Your task to perform on an android device: open app "Indeed Job Search" (install if not already installed) and go to login screen Image 0: 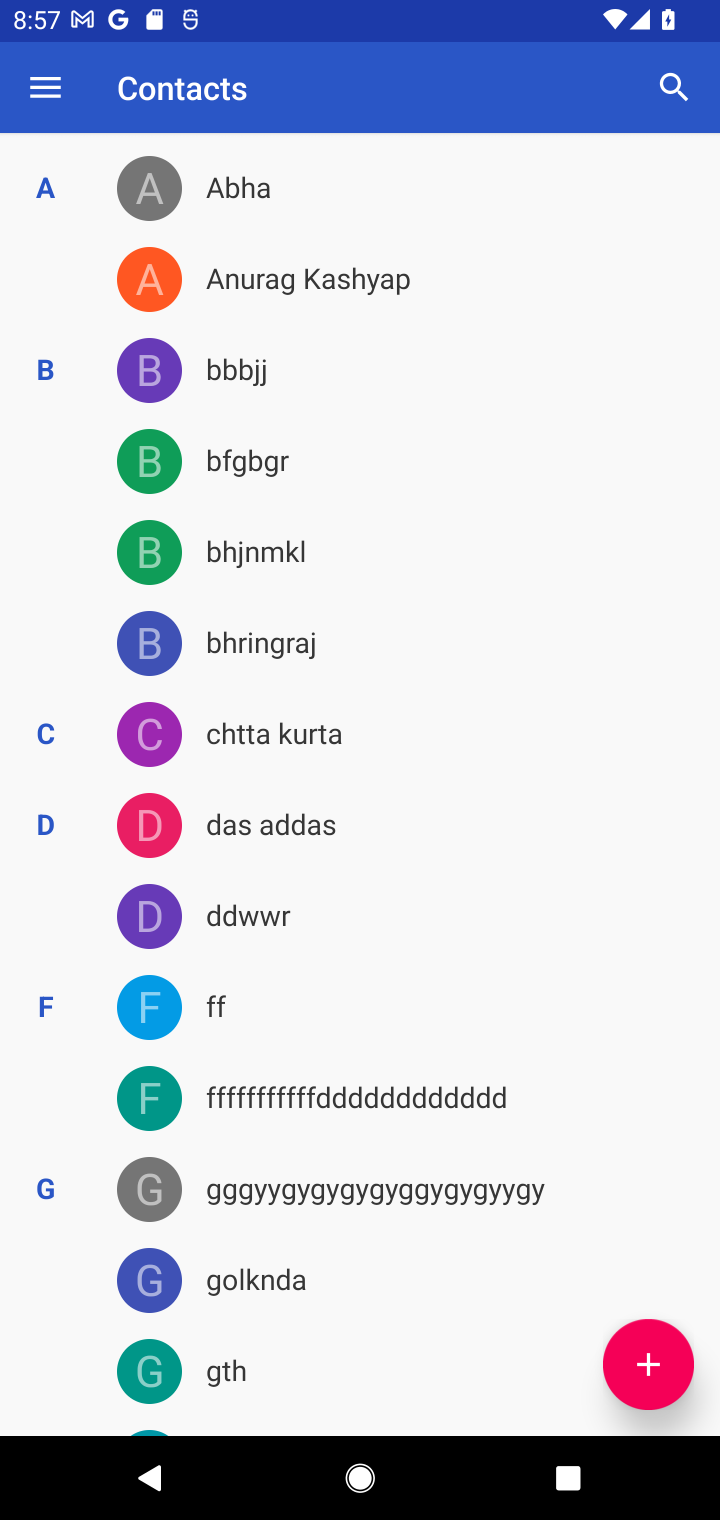
Step 0: press home button
Your task to perform on an android device: open app "Indeed Job Search" (install if not already installed) and go to login screen Image 1: 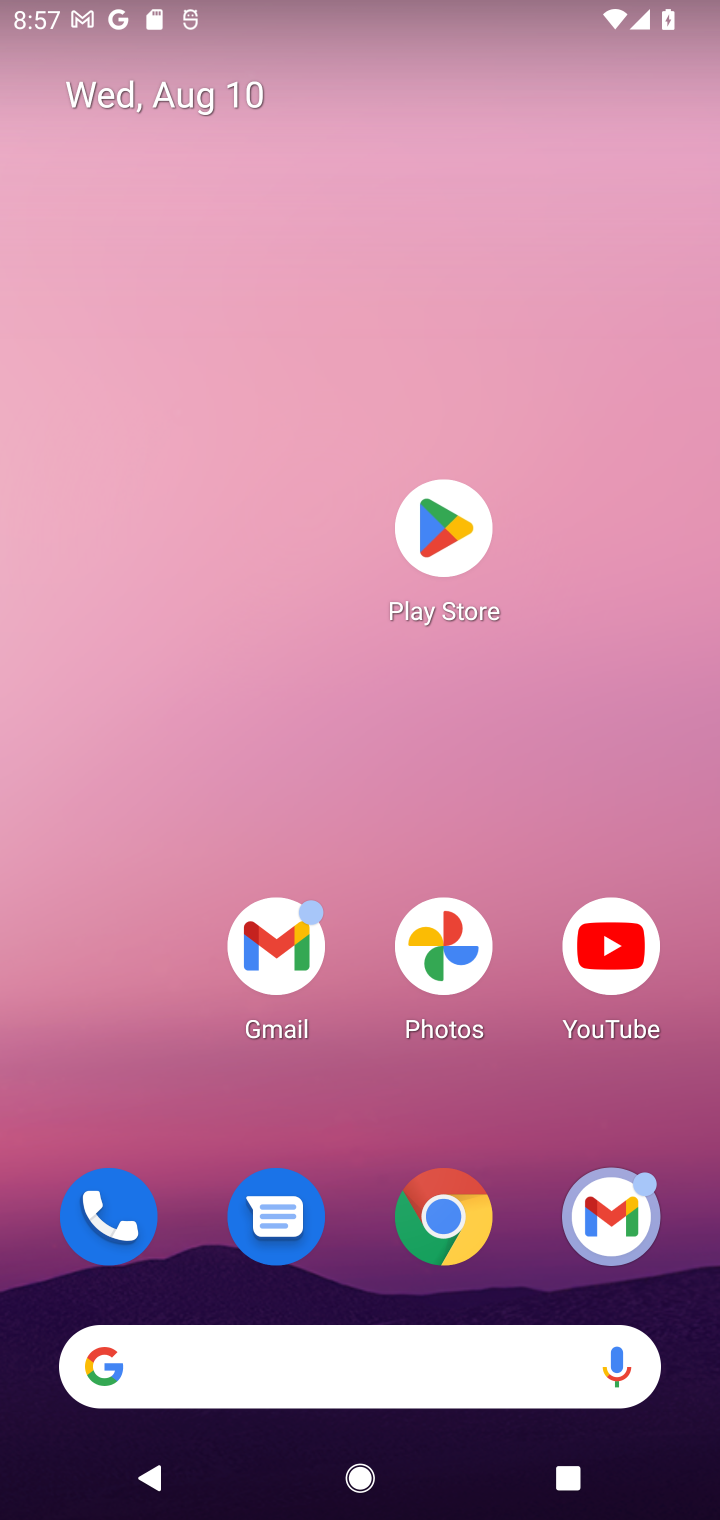
Step 1: click (444, 530)
Your task to perform on an android device: open app "Indeed Job Search" (install if not already installed) and go to login screen Image 2: 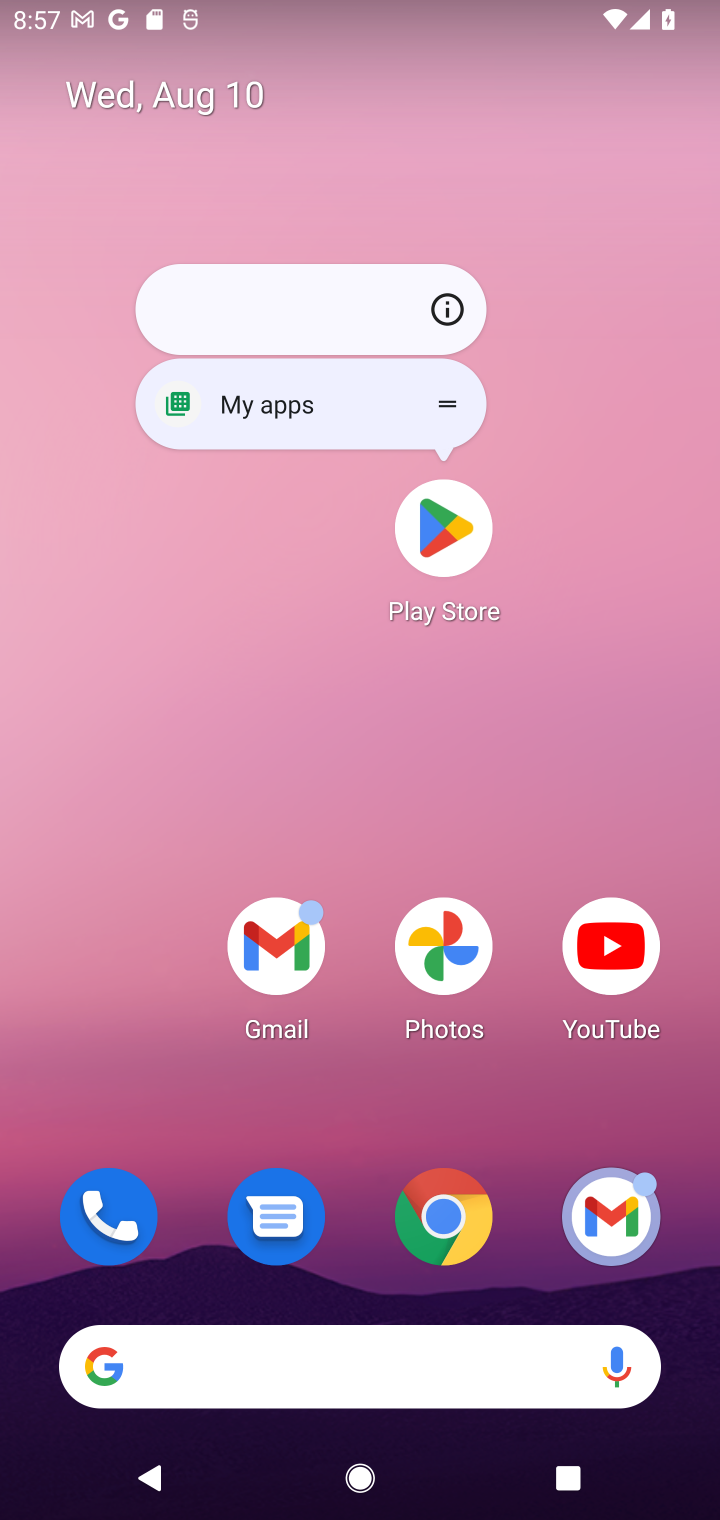
Step 2: click (444, 528)
Your task to perform on an android device: open app "Indeed Job Search" (install if not already installed) and go to login screen Image 3: 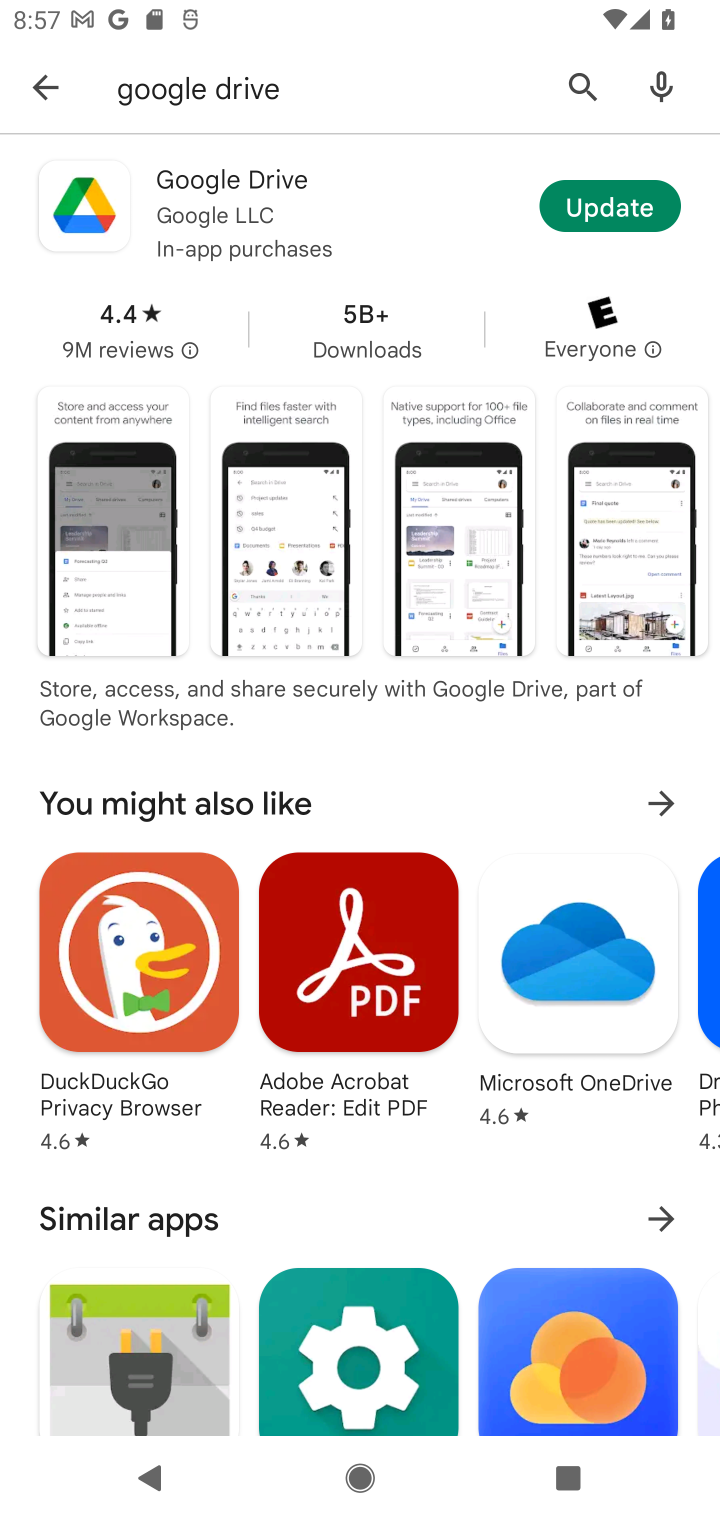
Step 3: click (578, 75)
Your task to perform on an android device: open app "Indeed Job Search" (install if not already installed) and go to login screen Image 4: 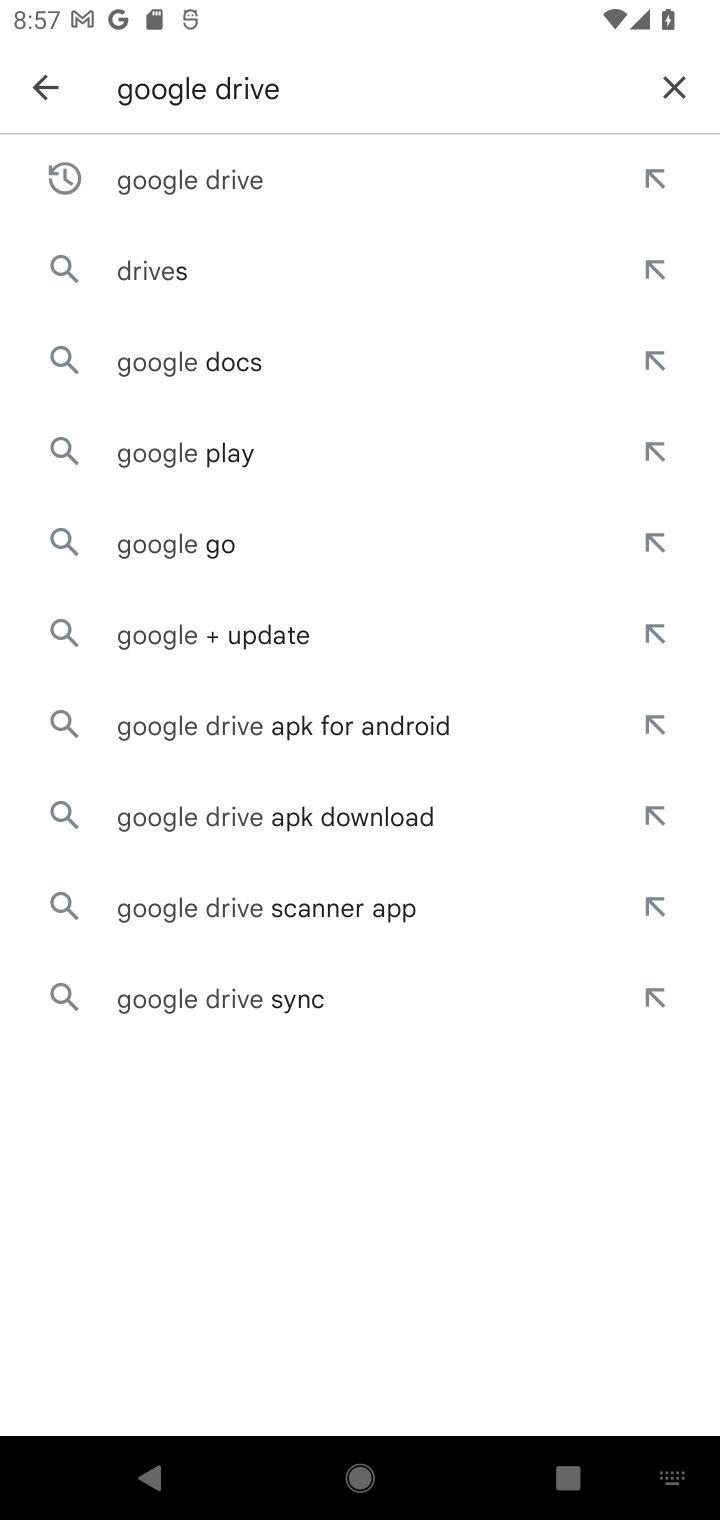
Step 4: click (686, 78)
Your task to perform on an android device: open app "Indeed Job Search" (install if not already installed) and go to login screen Image 5: 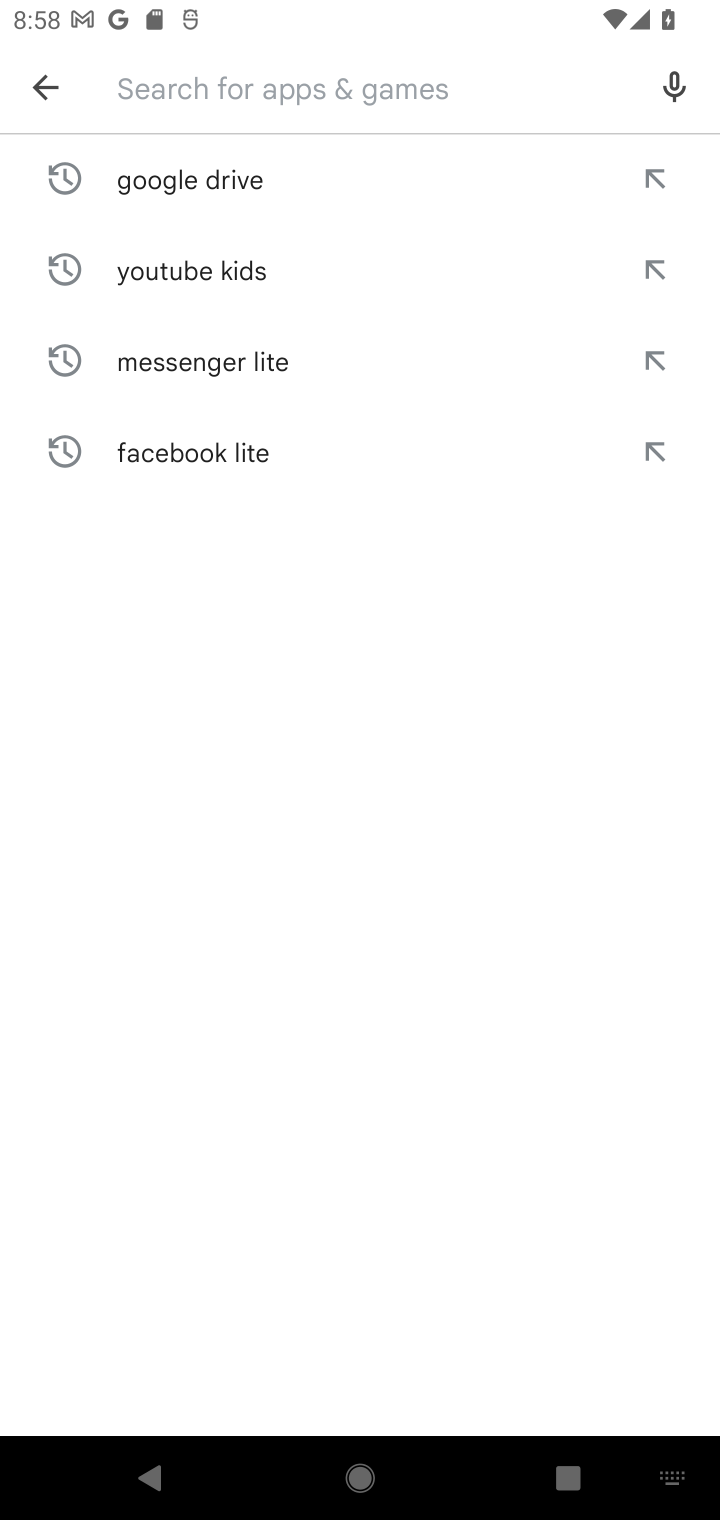
Step 5: type "Indeed Job Search"
Your task to perform on an android device: open app "Indeed Job Search" (install if not already installed) and go to login screen Image 6: 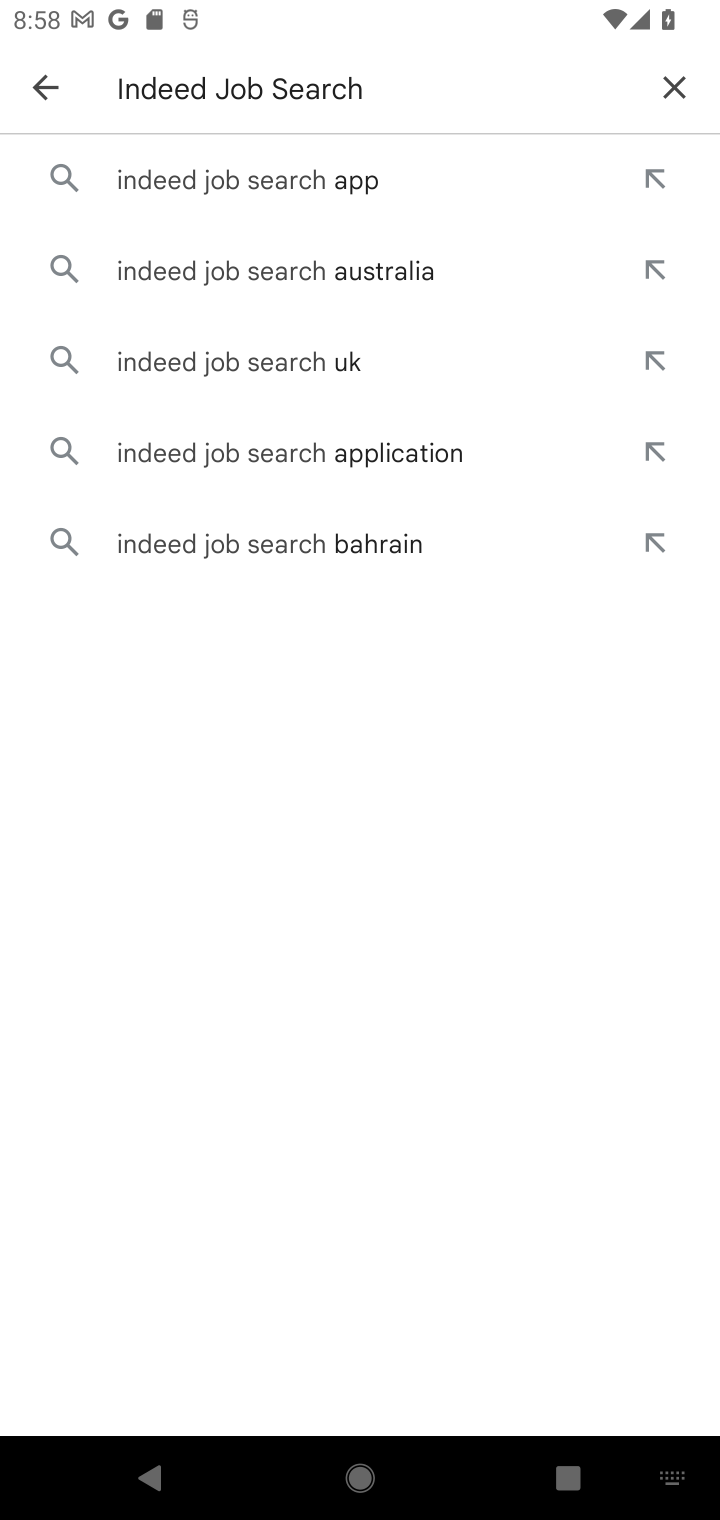
Step 6: click (256, 195)
Your task to perform on an android device: open app "Indeed Job Search" (install if not already installed) and go to login screen Image 7: 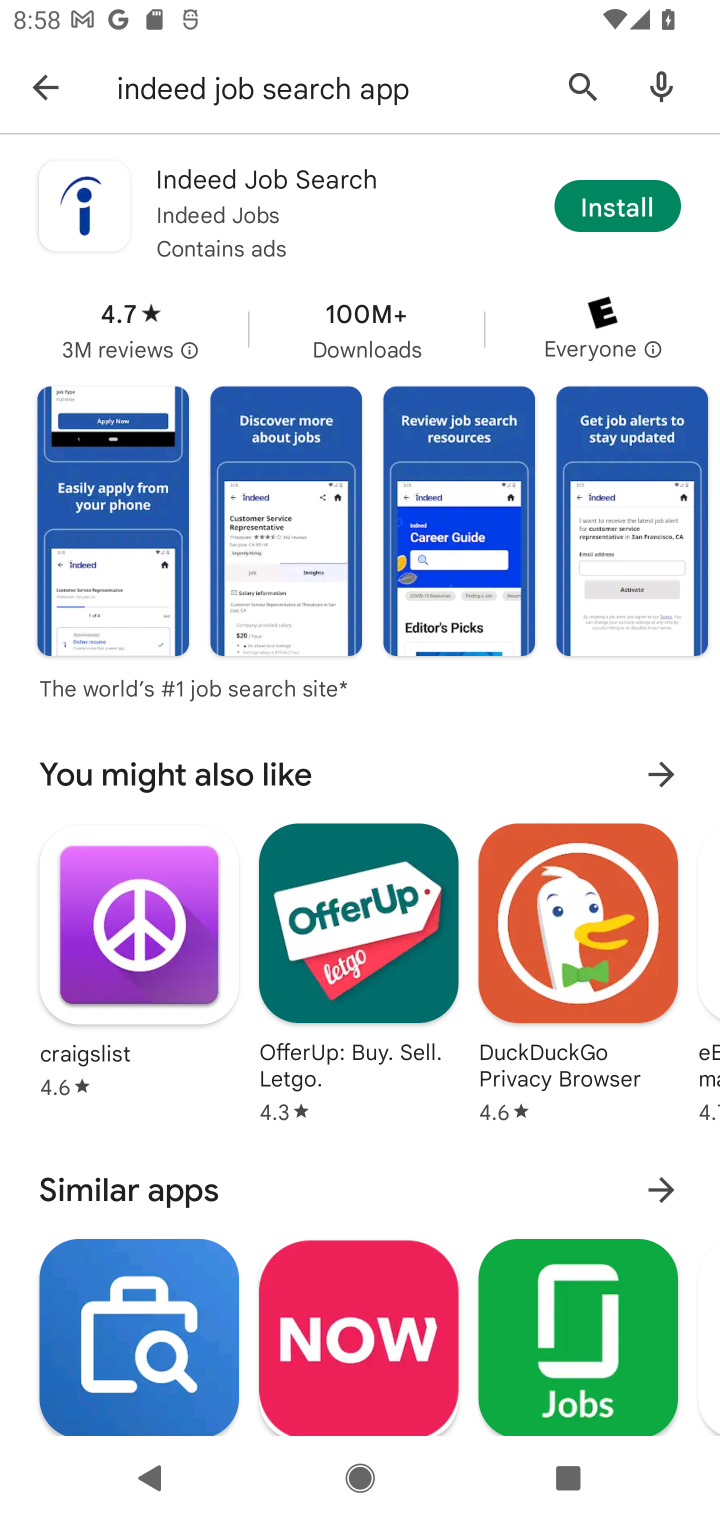
Step 7: click (613, 211)
Your task to perform on an android device: open app "Indeed Job Search" (install if not already installed) and go to login screen Image 8: 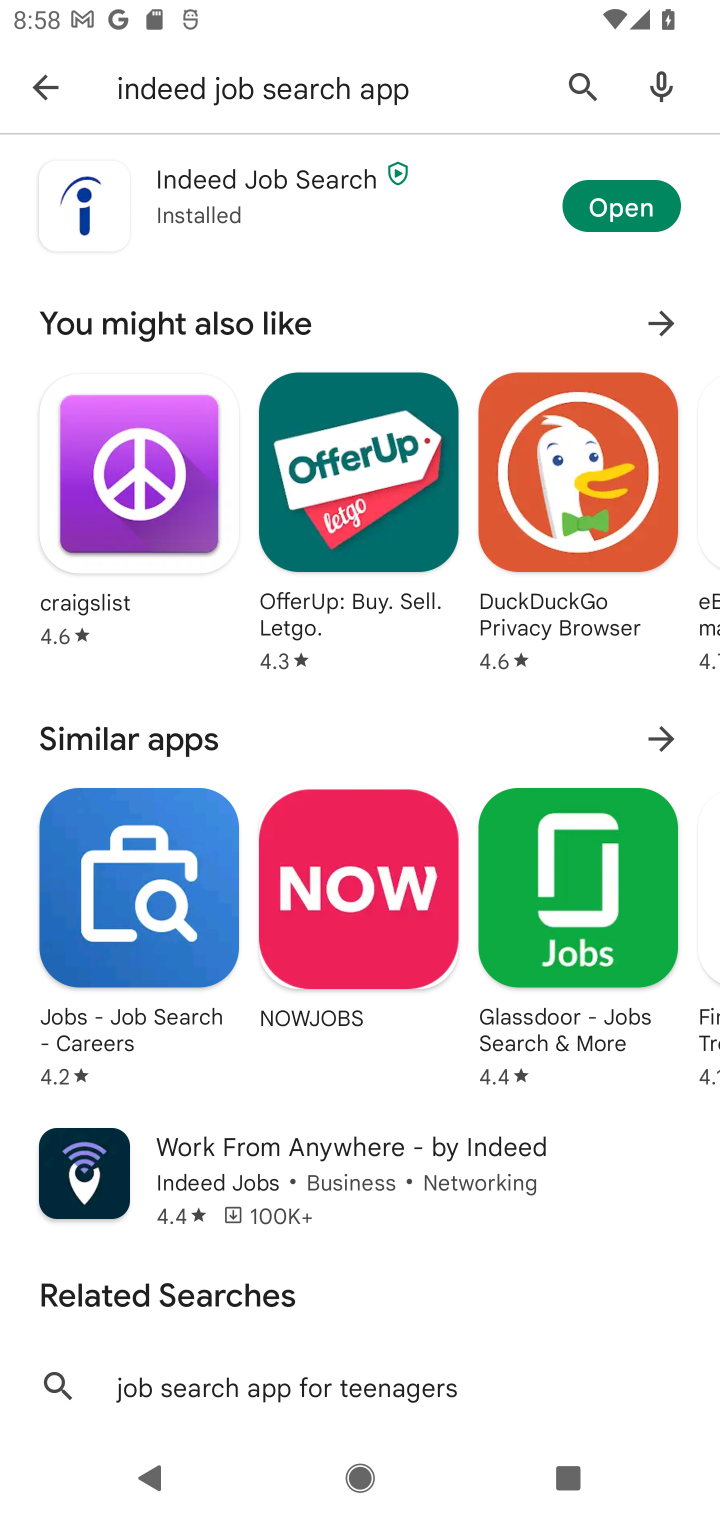
Step 8: click (613, 211)
Your task to perform on an android device: open app "Indeed Job Search" (install if not already installed) and go to login screen Image 9: 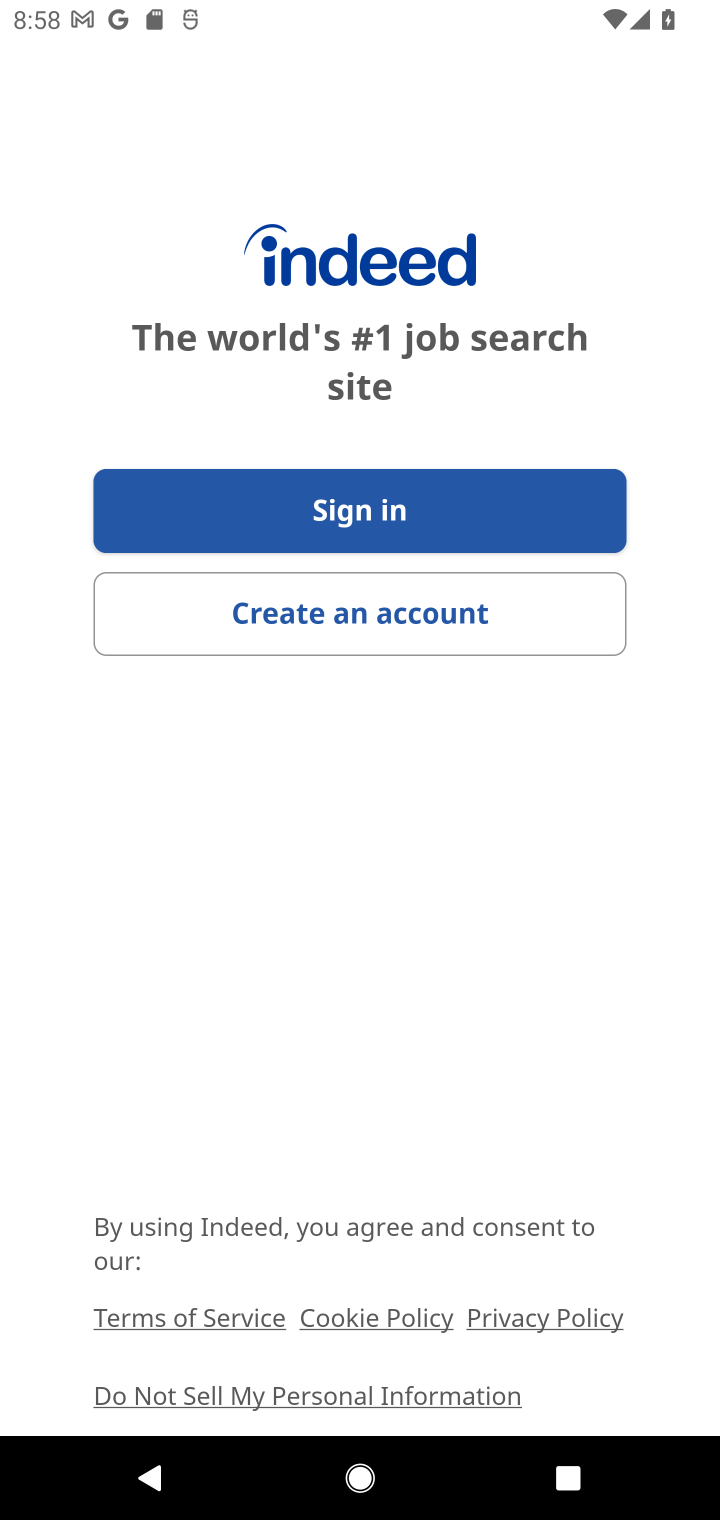
Step 9: task complete